Your task to perform on an android device: open chrome privacy settings Image 0: 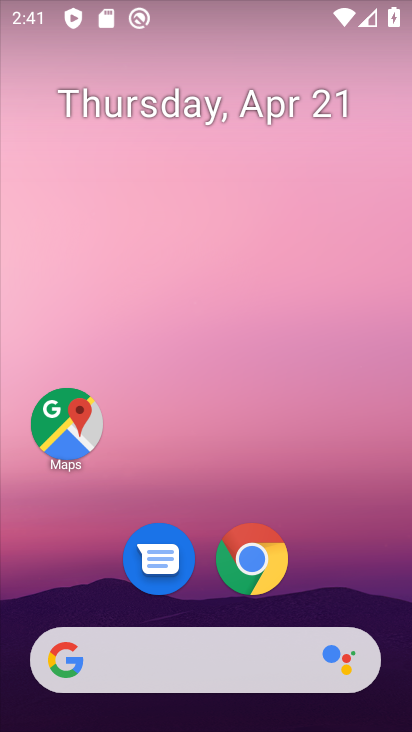
Step 0: drag from (358, 559) to (312, 111)
Your task to perform on an android device: open chrome privacy settings Image 1: 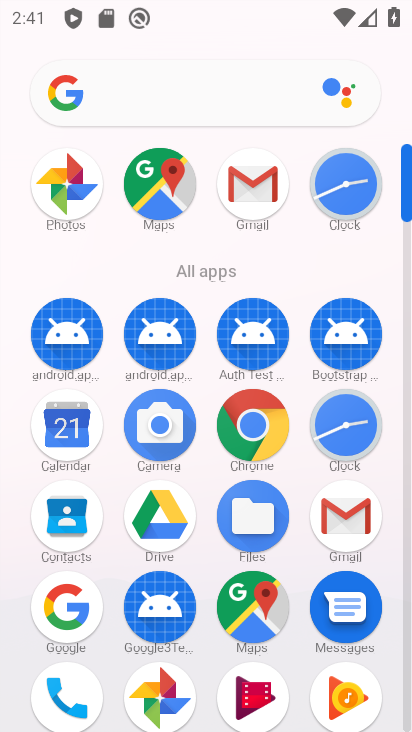
Step 1: click (241, 426)
Your task to perform on an android device: open chrome privacy settings Image 2: 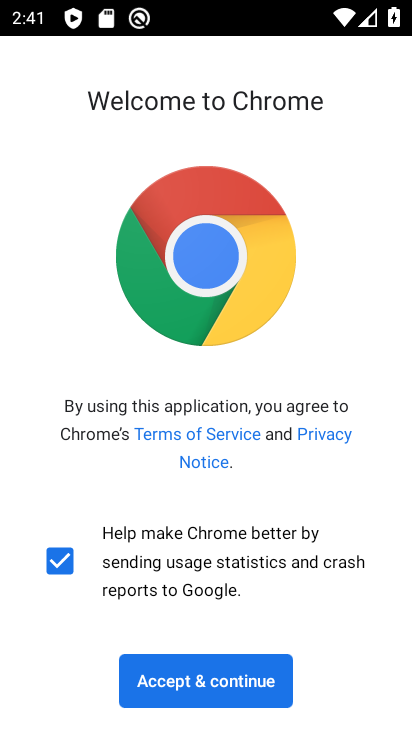
Step 2: click (228, 679)
Your task to perform on an android device: open chrome privacy settings Image 3: 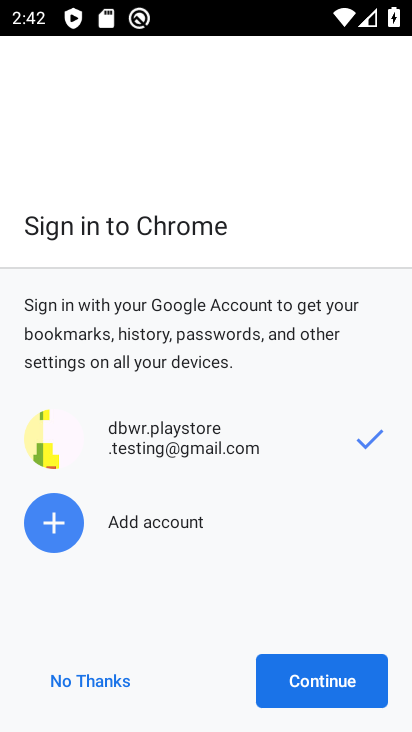
Step 3: click (317, 666)
Your task to perform on an android device: open chrome privacy settings Image 4: 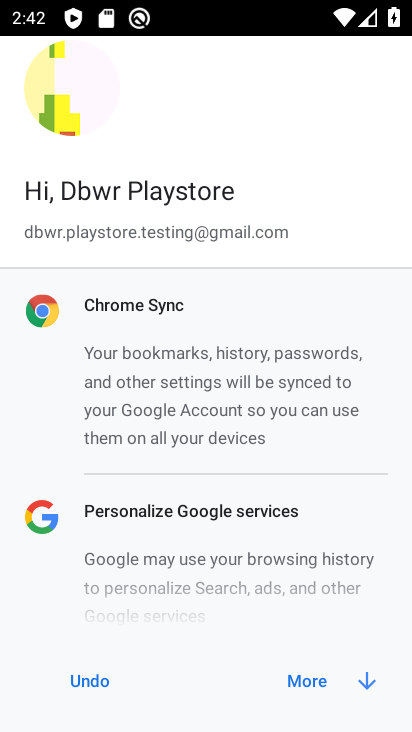
Step 4: click (338, 680)
Your task to perform on an android device: open chrome privacy settings Image 5: 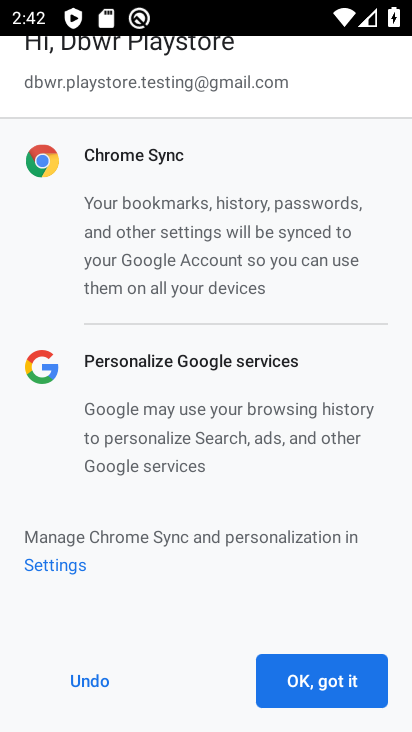
Step 5: click (338, 680)
Your task to perform on an android device: open chrome privacy settings Image 6: 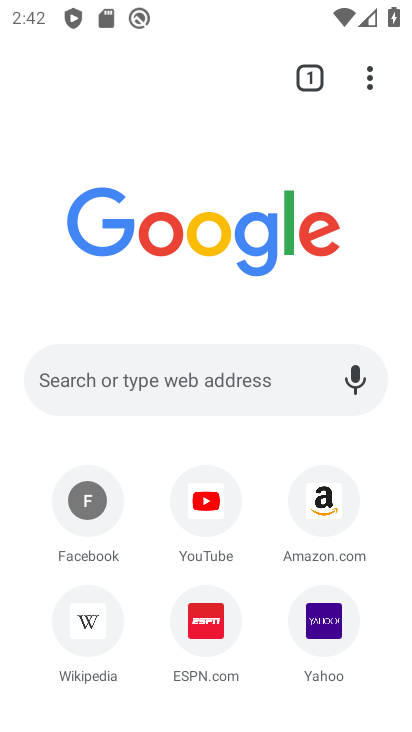
Step 6: click (363, 84)
Your task to perform on an android device: open chrome privacy settings Image 7: 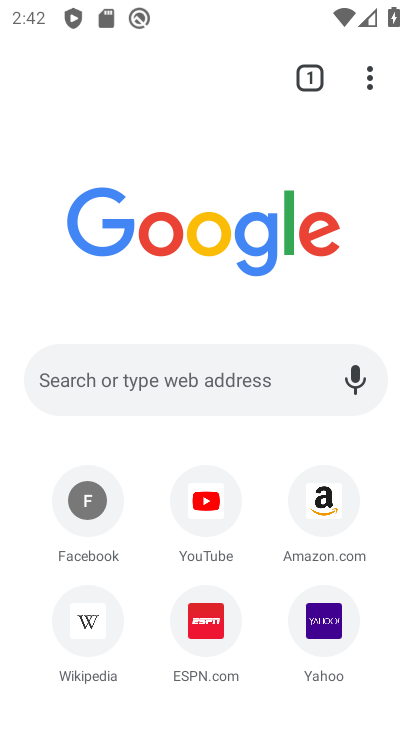
Step 7: click (369, 91)
Your task to perform on an android device: open chrome privacy settings Image 8: 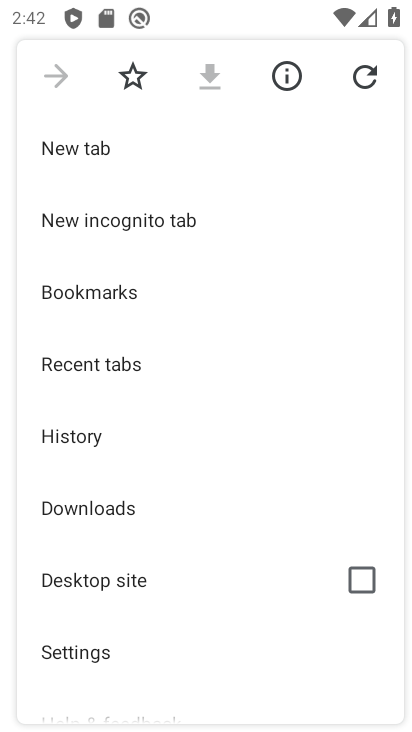
Step 8: drag from (197, 548) to (181, 309)
Your task to perform on an android device: open chrome privacy settings Image 9: 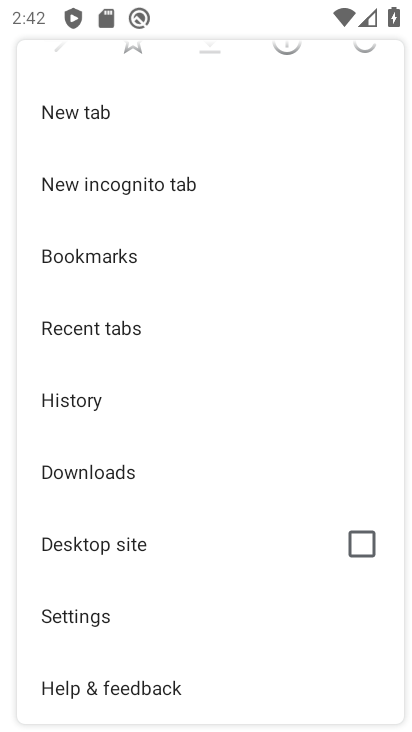
Step 9: click (111, 619)
Your task to perform on an android device: open chrome privacy settings Image 10: 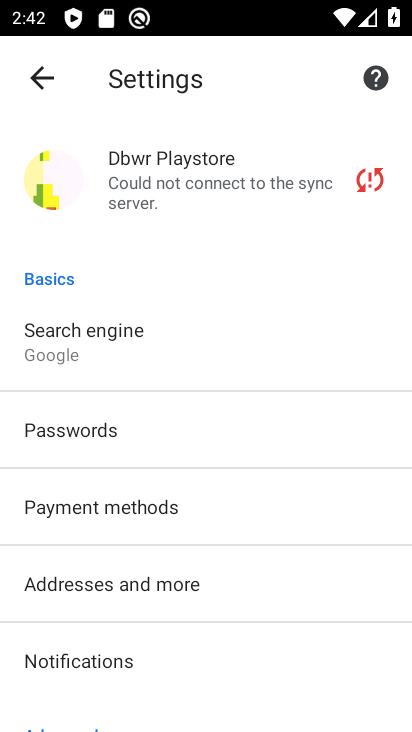
Step 10: drag from (199, 616) to (175, 348)
Your task to perform on an android device: open chrome privacy settings Image 11: 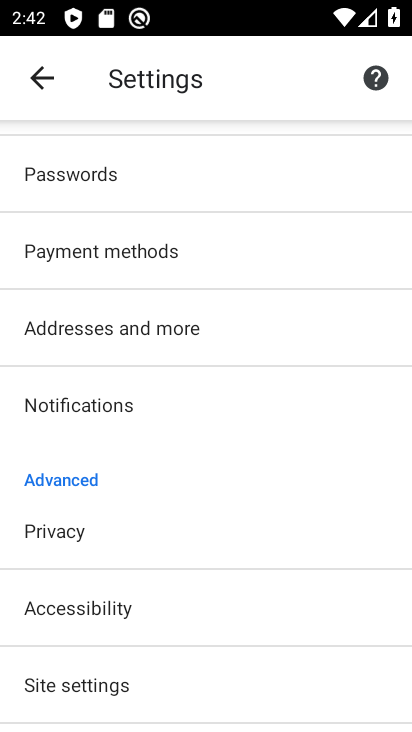
Step 11: click (127, 540)
Your task to perform on an android device: open chrome privacy settings Image 12: 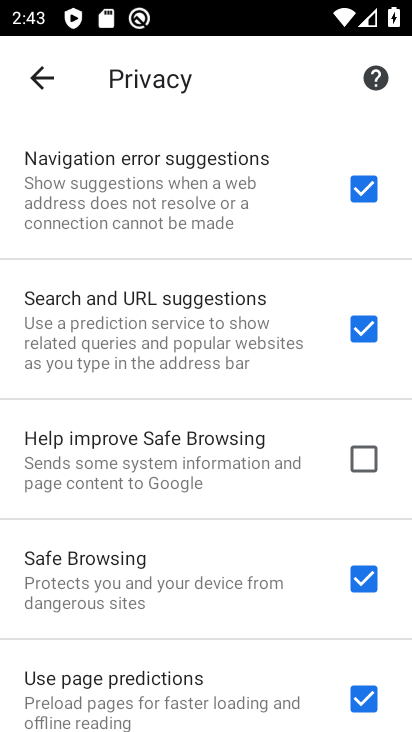
Step 12: task complete